Your task to perform on an android device: What is the news today? Image 0: 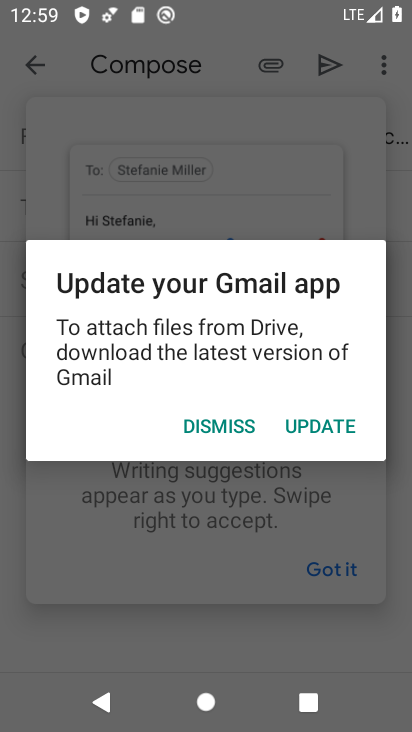
Step 0: press home button
Your task to perform on an android device: What is the news today? Image 1: 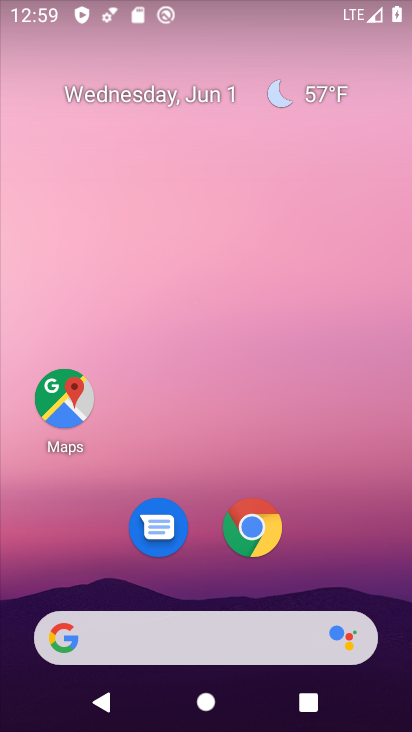
Step 1: task complete